Your task to perform on an android device: Open Reddit.com Image 0: 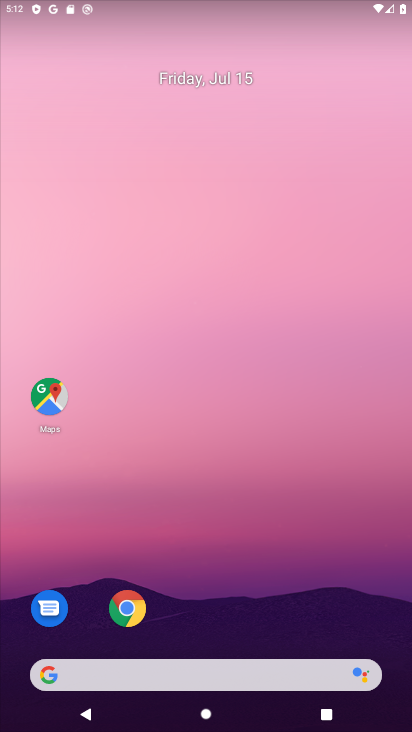
Step 0: drag from (243, 604) to (327, 37)
Your task to perform on an android device: Open Reddit.com Image 1: 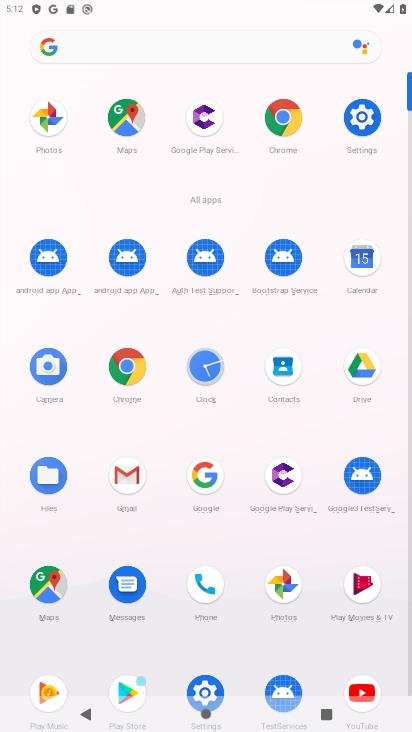
Step 1: click (285, 129)
Your task to perform on an android device: Open Reddit.com Image 2: 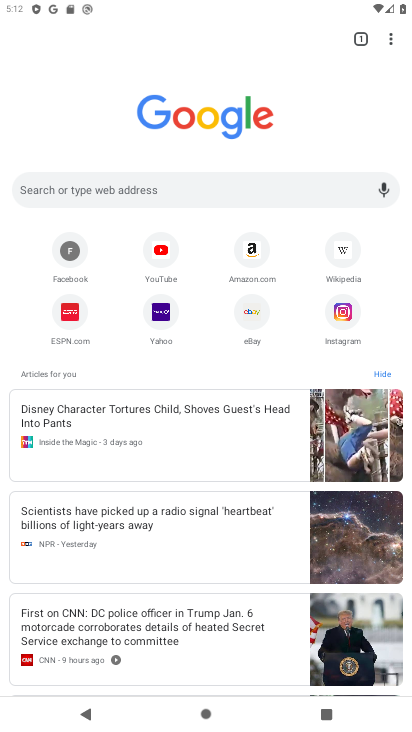
Step 2: click (200, 191)
Your task to perform on an android device: Open Reddit.com Image 3: 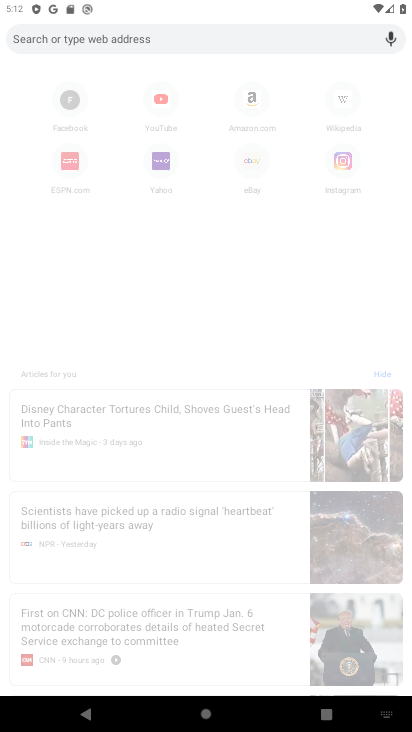
Step 3: type "reddit.com"
Your task to perform on an android device: Open Reddit.com Image 4: 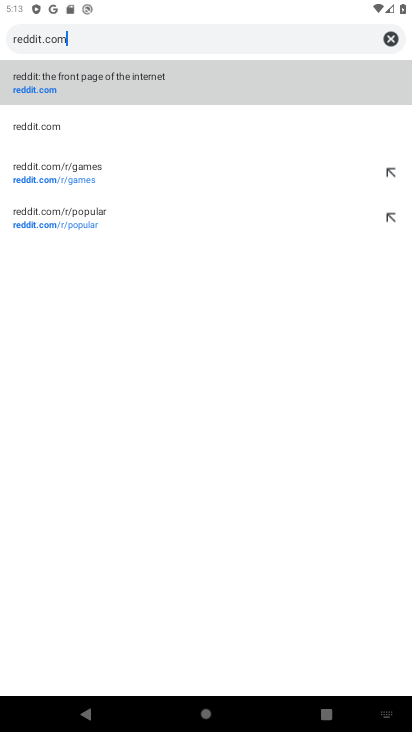
Step 4: click (34, 87)
Your task to perform on an android device: Open Reddit.com Image 5: 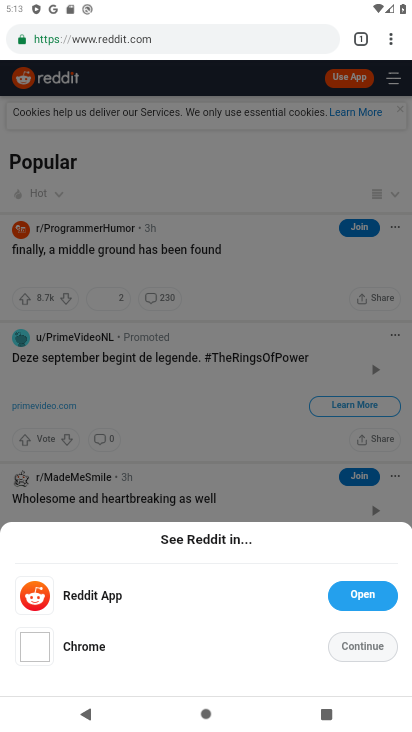
Step 5: task complete